Your task to perform on an android device: find snoozed emails in the gmail app Image 0: 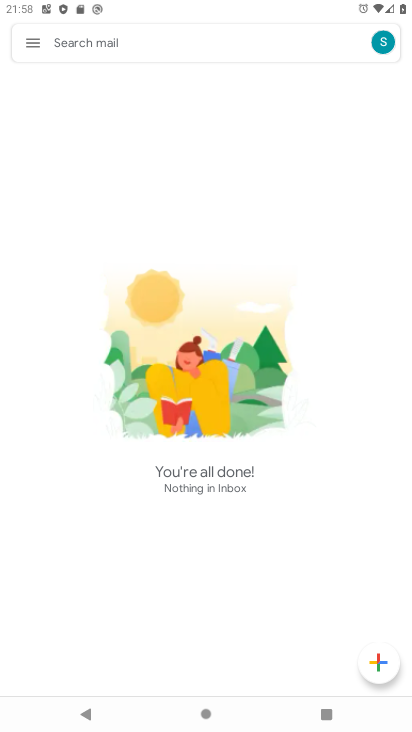
Step 0: press home button
Your task to perform on an android device: find snoozed emails in the gmail app Image 1: 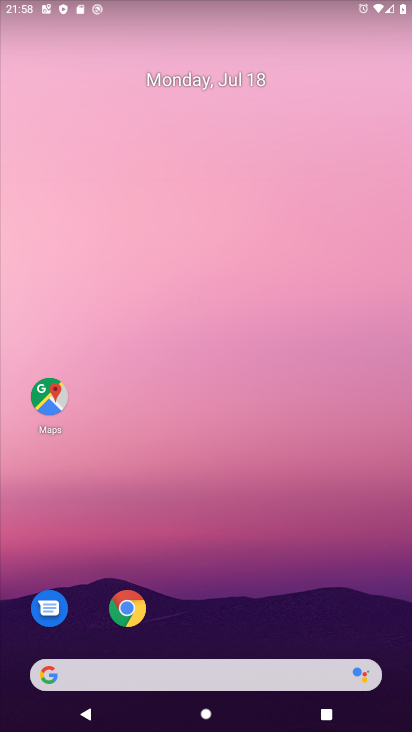
Step 1: drag from (62, 646) to (269, 152)
Your task to perform on an android device: find snoozed emails in the gmail app Image 2: 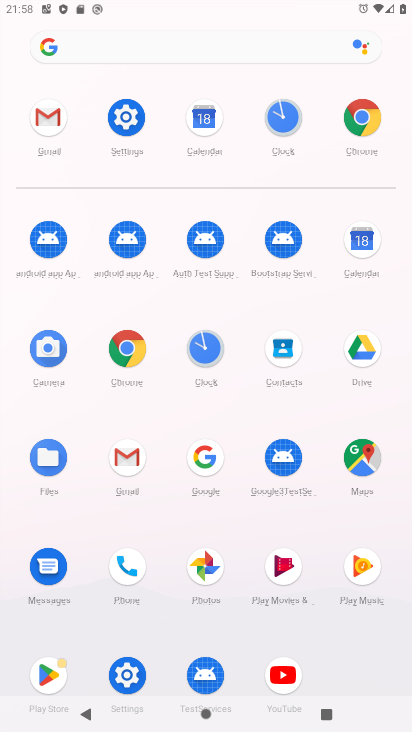
Step 2: click (121, 465)
Your task to perform on an android device: find snoozed emails in the gmail app Image 3: 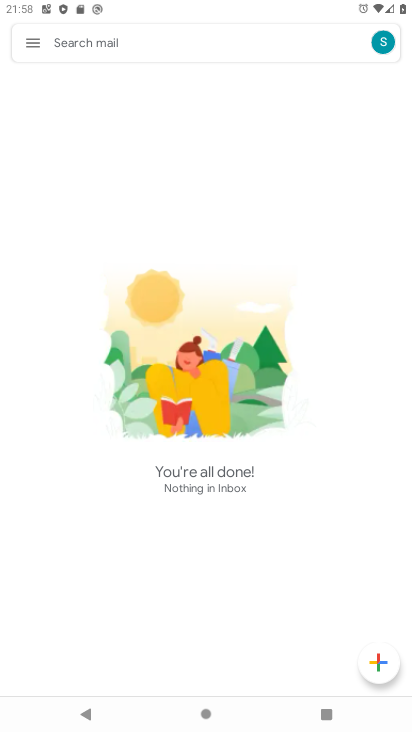
Step 3: click (35, 46)
Your task to perform on an android device: find snoozed emails in the gmail app Image 4: 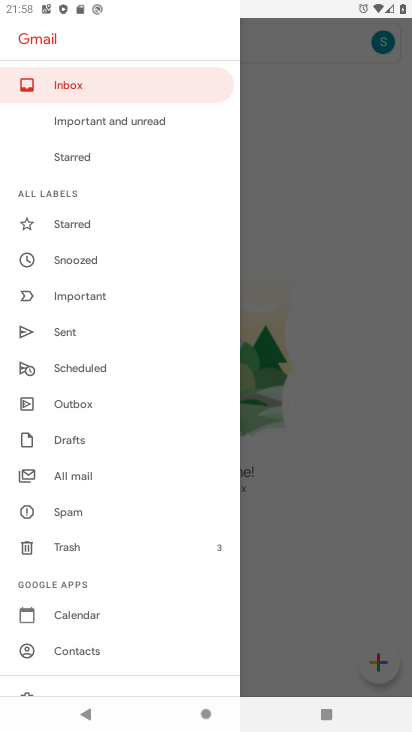
Step 4: click (81, 265)
Your task to perform on an android device: find snoozed emails in the gmail app Image 5: 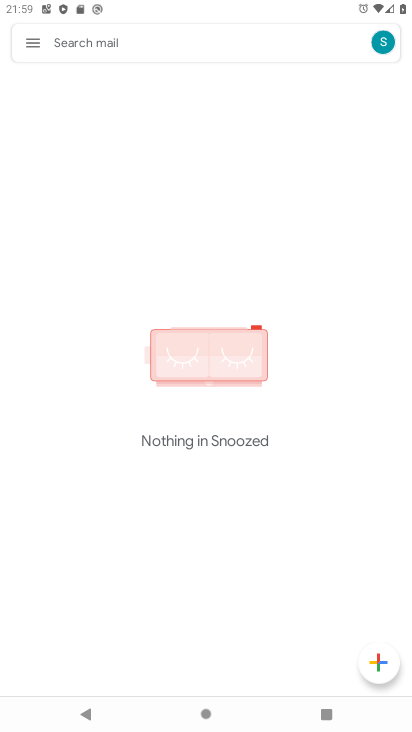
Step 5: task complete